Your task to perform on an android device: toggle sleep mode Image 0: 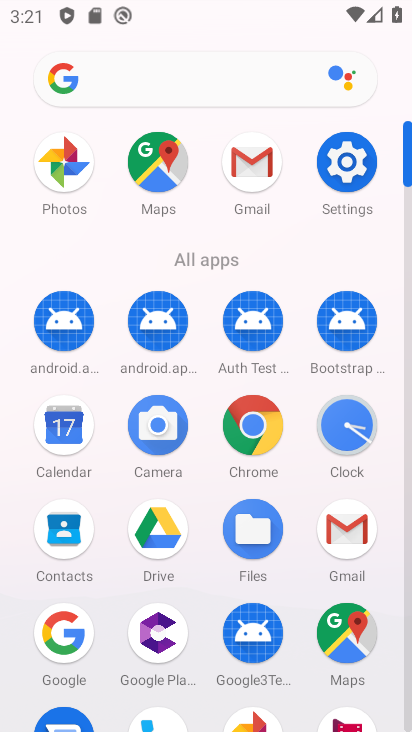
Step 0: click (339, 158)
Your task to perform on an android device: toggle sleep mode Image 1: 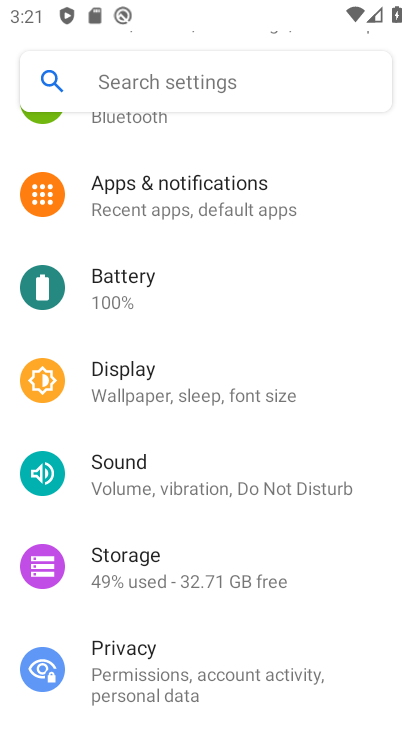
Step 1: click (210, 390)
Your task to perform on an android device: toggle sleep mode Image 2: 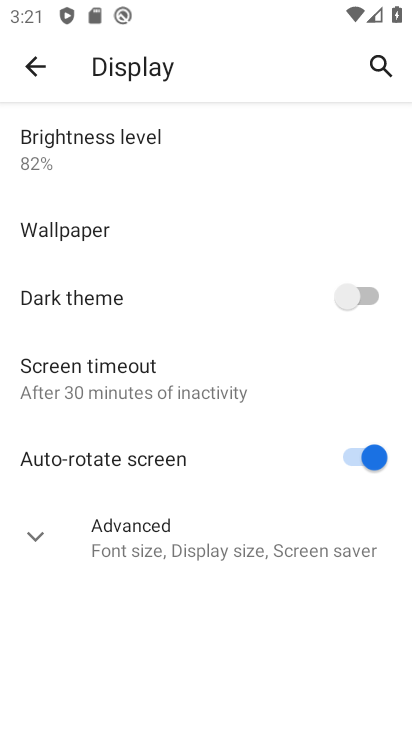
Step 2: click (35, 536)
Your task to perform on an android device: toggle sleep mode Image 3: 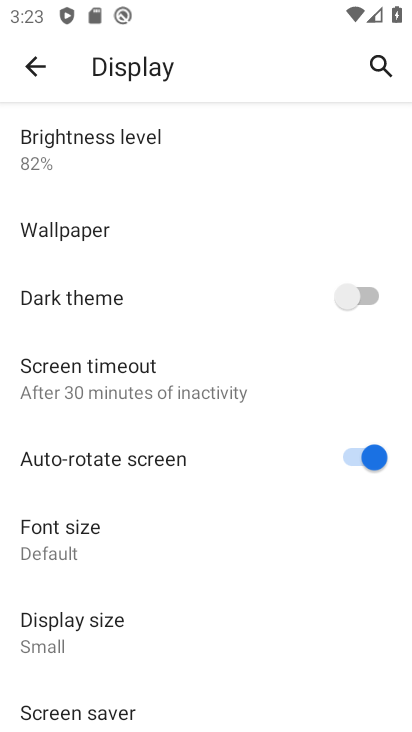
Step 3: task complete